Your task to perform on an android device: Open eBay Image 0: 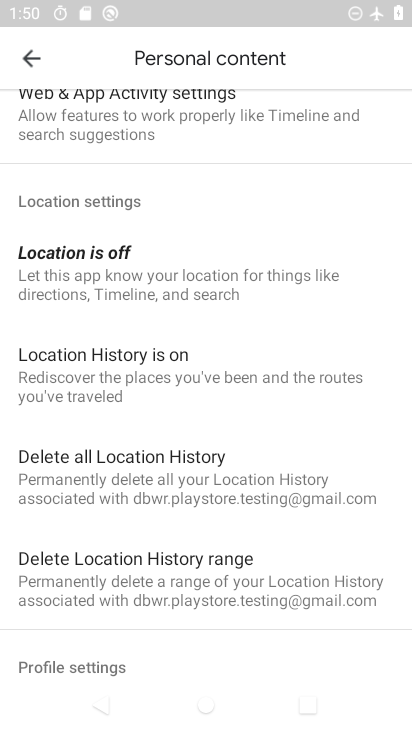
Step 0: press home button
Your task to perform on an android device: Open eBay Image 1: 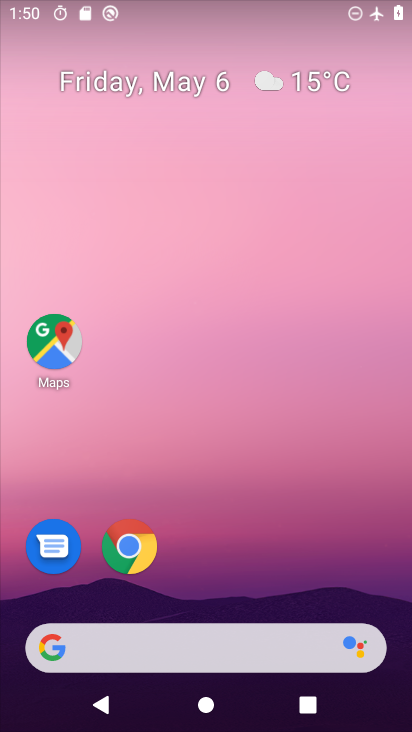
Step 1: click (134, 550)
Your task to perform on an android device: Open eBay Image 2: 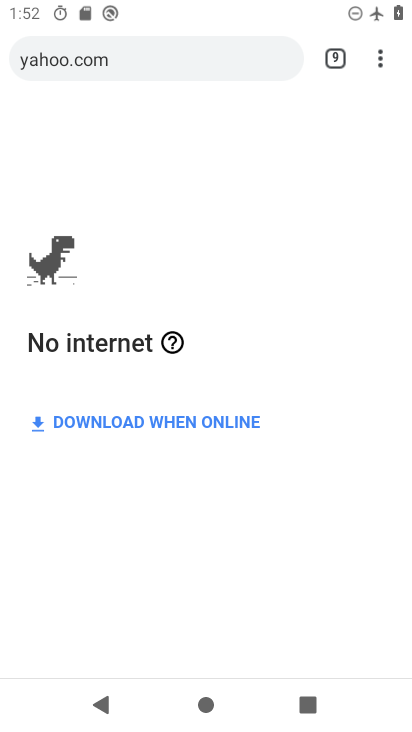
Step 2: task complete